Your task to perform on an android device: Check the news Image 0: 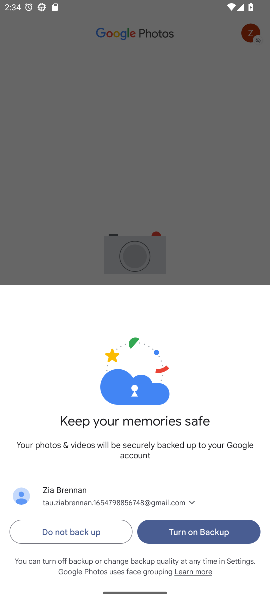
Step 0: press home button
Your task to perform on an android device: Check the news Image 1: 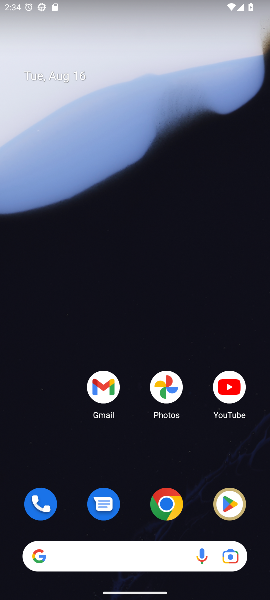
Step 1: drag from (140, 473) to (140, 1)
Your task to perform on an android device: Check the news Image 2: 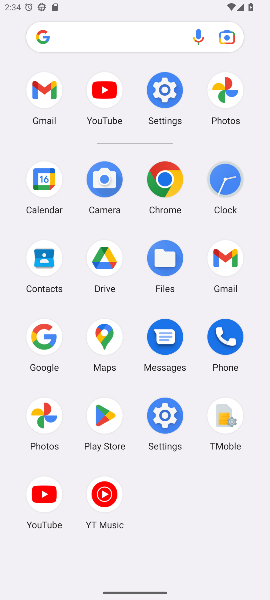
Step 2: click (37, 329)
Your task to perform on an android device: Check the news Image 3: 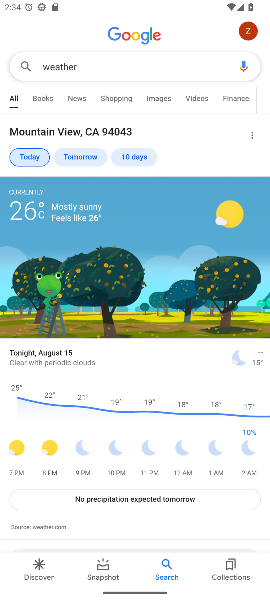
Step 3: task complete